Your task to perform on an android device: turn off javascript in the chrome app Image 0: 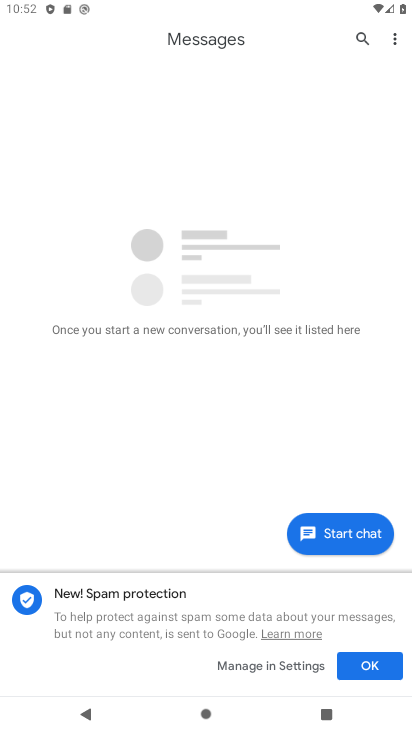
Step 0: press home button
Your task to perform on an android device: turn off javascript in the chrome app Image 1: 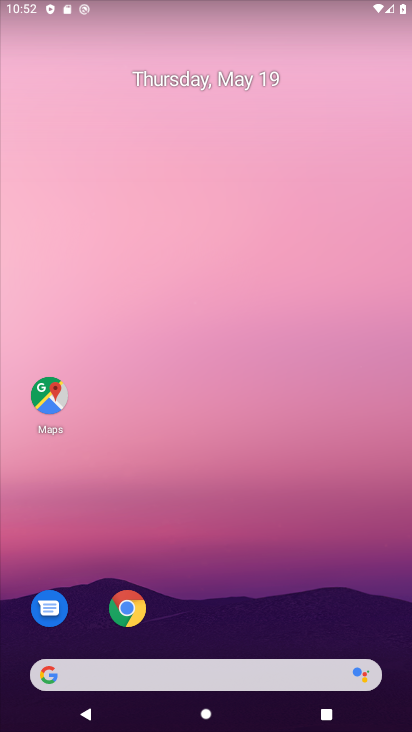
Step 1: drag from (352, 592) to (401, 106)
Your task to perform on an android device: turn off javascript in the chrome app Image 2: 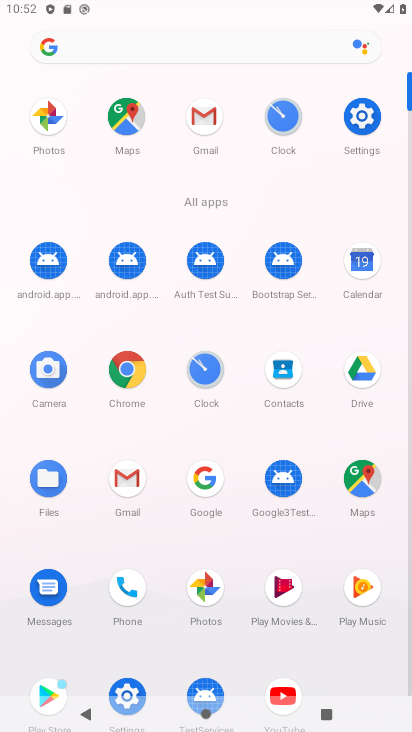
Step 2: click (129, 393)
Your task to perform on an android device: turn off javascript in the chrome app Image 3: 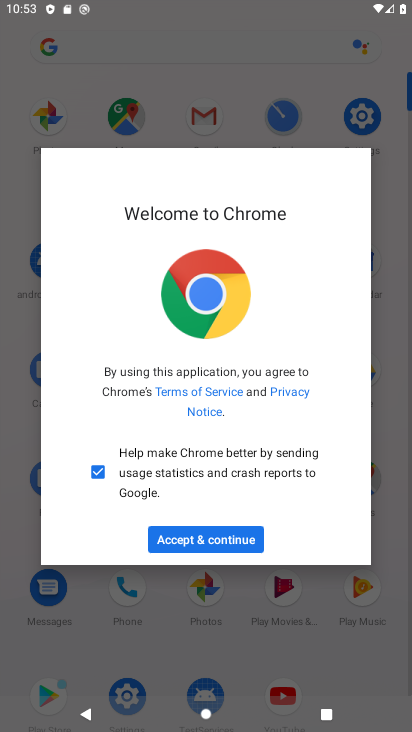
Step 3: click (230, 538)
Your task to perform on an android device: turn off javascript in the chrome app Image 4: 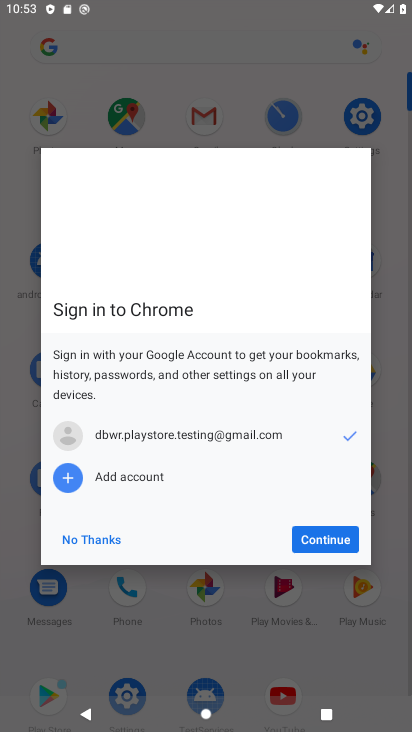
Step 4: click (321, 545)
Your task to perform on an android device: turn off javascript in the chrome app Image 5: 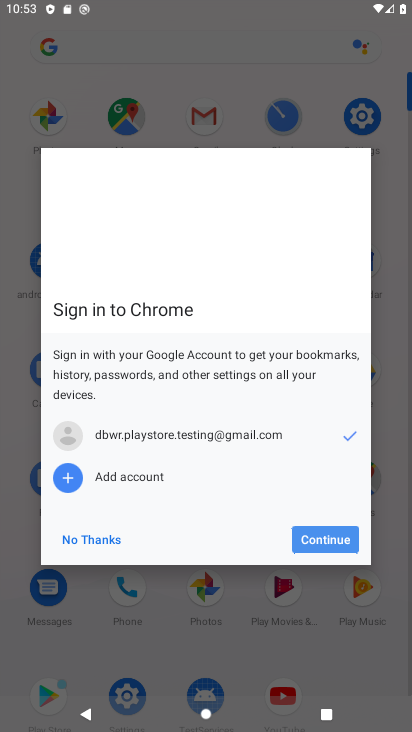
Step 5: click (321, 545)
Your task to perform on an android device: turn off javascript in the chrome app Image 6: 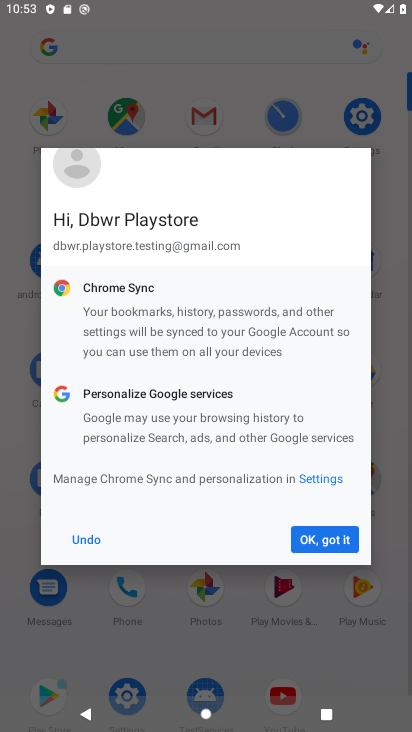
Step 6: click (321, 546)
Your task to perform on an android device: turn off javascript in the chrome app Image 7: 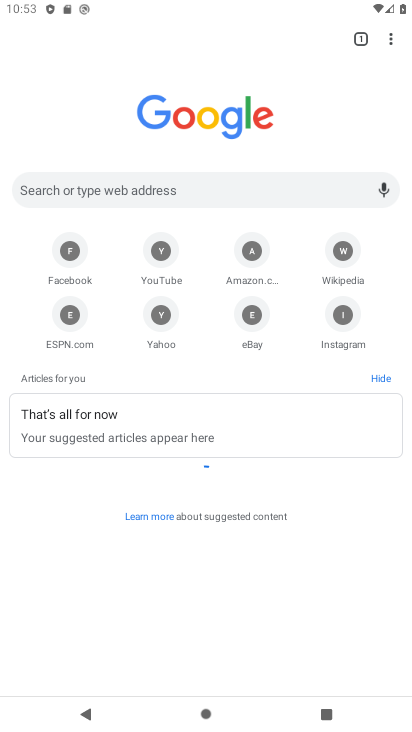
Step 7: drag from (393, 38) to (223, 327)
Your task to perform on an android device: turn off javascript in the chrome app Image 8: 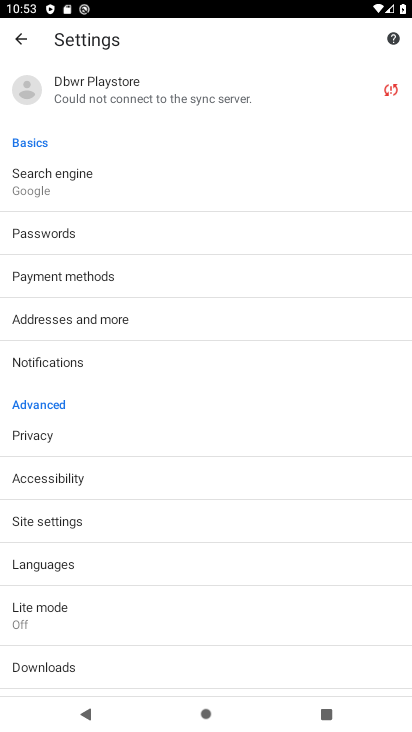
Step 8: click (44, 529)
Your task to perform on an android device: turn off javascript in the chrome app Image 9: 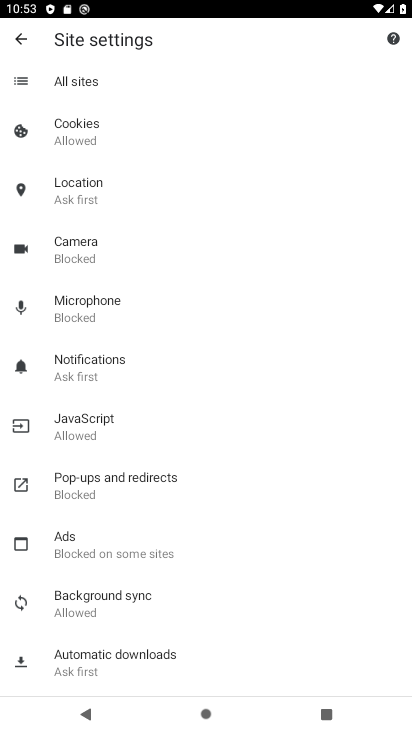
Step 9: click (107, 433)
Your task to perform on an android device: turn off javascript in the chrome app Image 10: 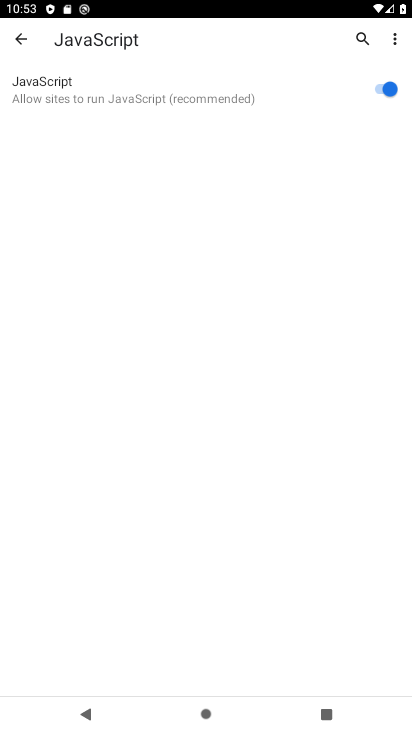
Step 10: click (387, 81)
Your task to perform on an android device: turn off javascript in the chrome app Image 11: 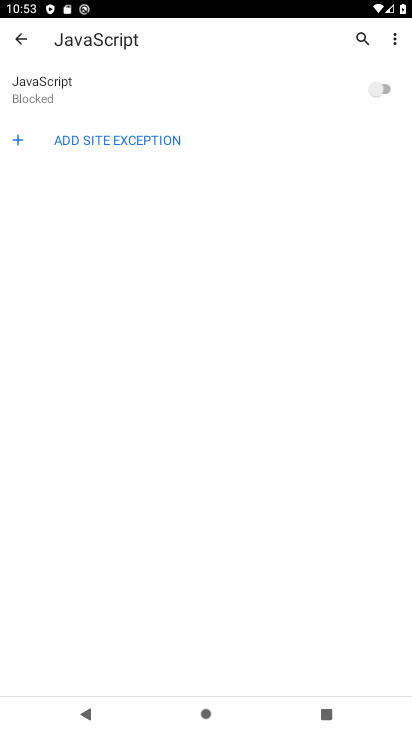
Step 11: task complete